Your task to perform on an android device: Do I have any events tomorrow? Image 0: 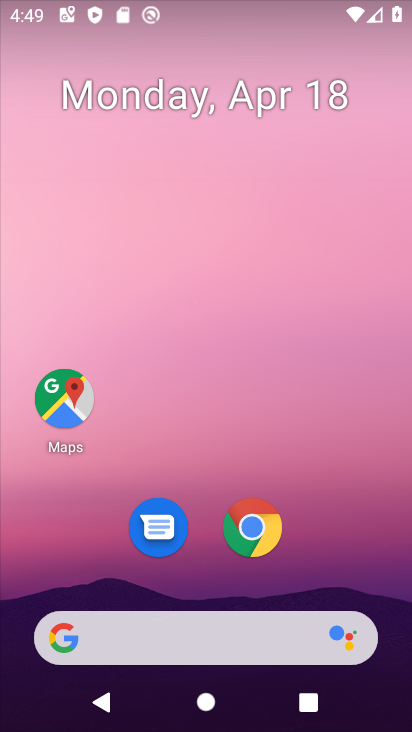
Step 0: drag from (218, 603) to (218, 127)
Your task to perform on an android device: Do I have any events tomorrow? Image 1: 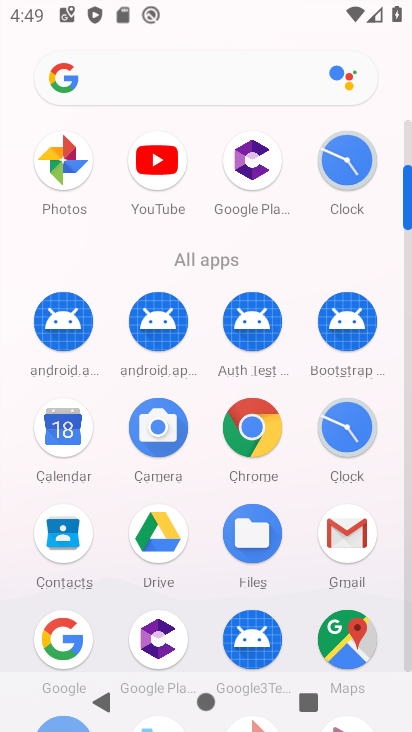
Step 1: click (49, 423)
Your task to perform on an android device: Do I have any events tomorrow? Image 2: 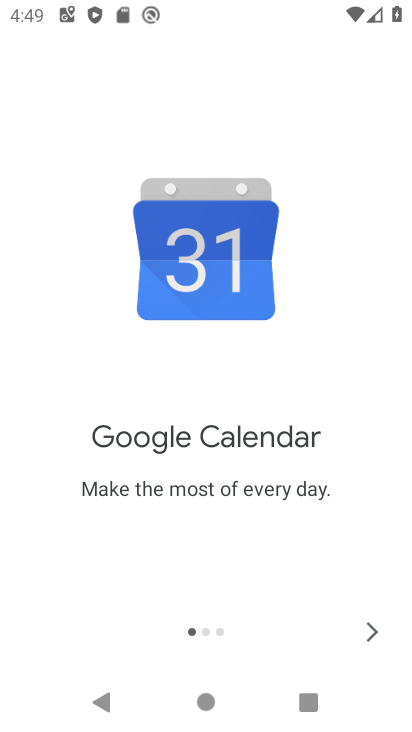
Step 2: click (368, 632)
Your task to perform on an android device: Do I have any events tomorrow? Image 3: 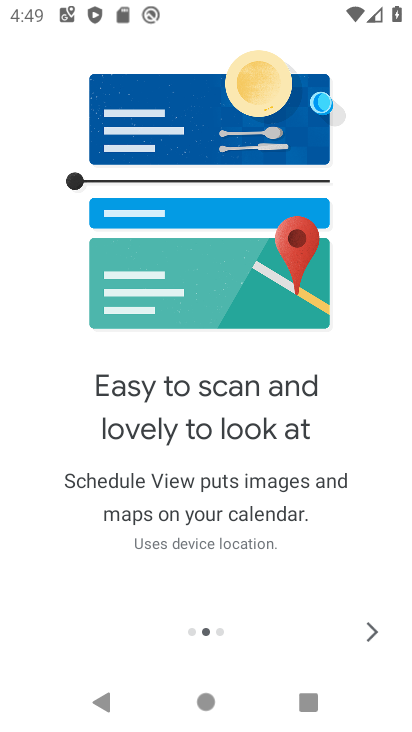
Step 3: click (368, 632)
Your task to perform on an android device: Do I have any events tomorrow? Image 4: 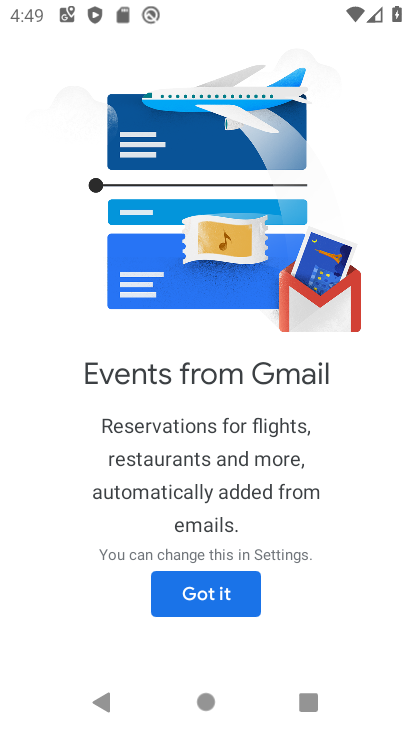
Step 4: click (229, 593)
Your task to perform on an android device: Do I have any events tomorrow? Image 5: 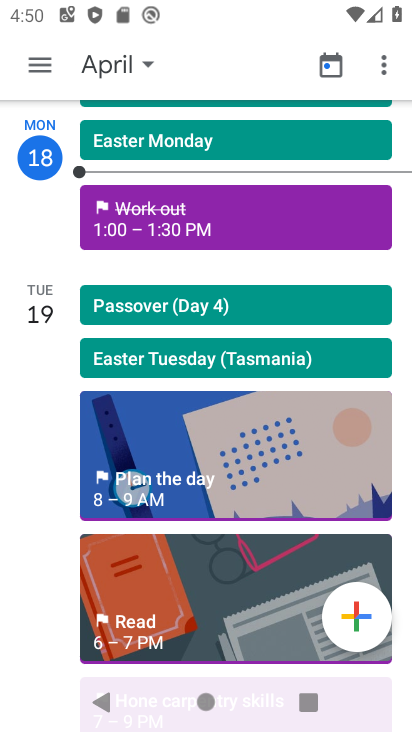
Step 5: click (32, 63)
Your task to perform on an android device: Do I have any events tomorrow? Image 6: 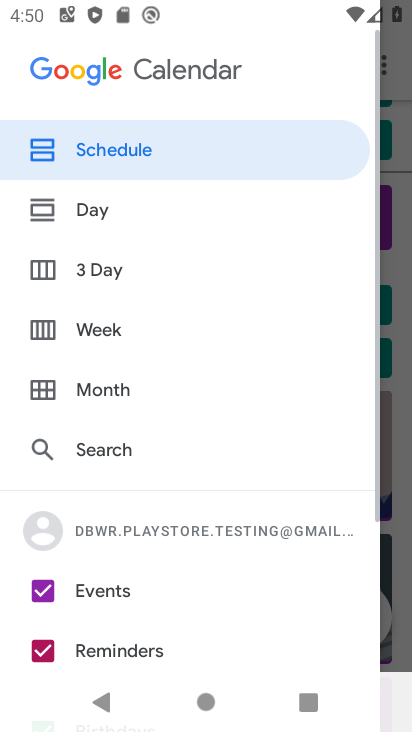
Step 6: click (86, 327)
Your task to perform on an android device: Do I have any events tomorrow? Image 7: 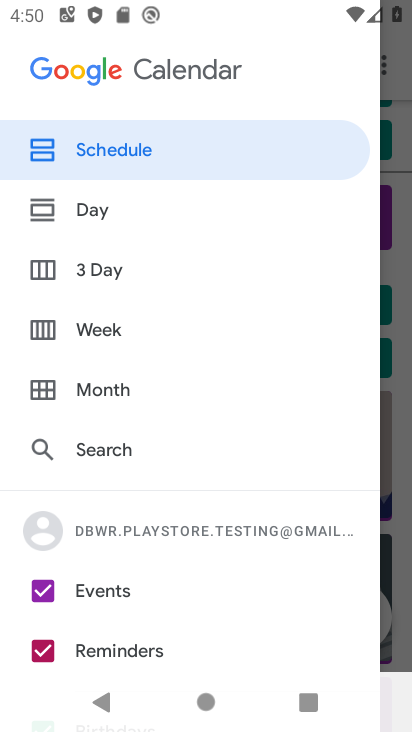
Step 7: click (103, 329)
Your task to perform on an android device: Do I have any events tomorrow? Image 8: 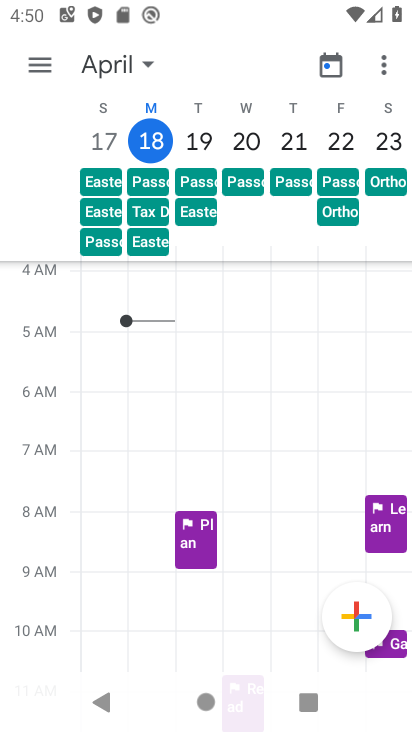
Step 8: task complete